Your task to perform on an android device: Search for Mexican restaurants on Maps Image 0: 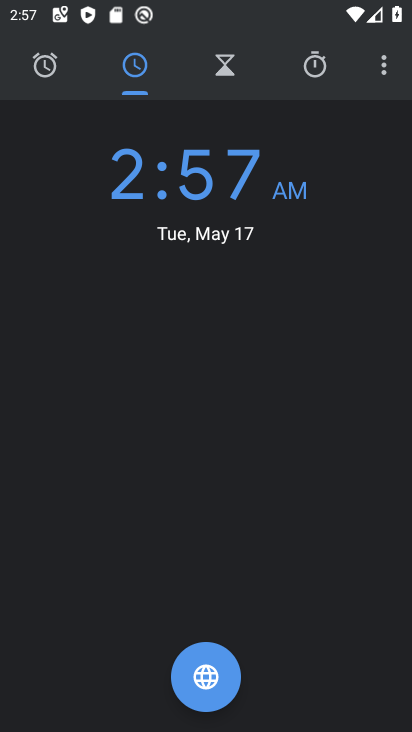
Step 0: press home button
Your task to perform on an android device: Search for Mexican restaurants on Maps Image 1: 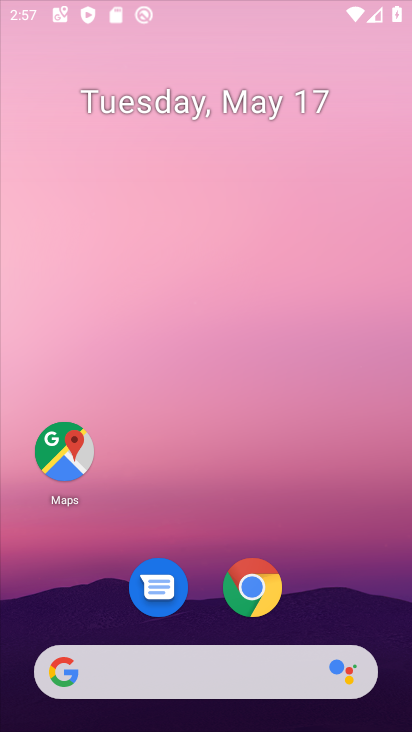
Step 1: drag from (286, 658) to (265, 3)
Your task to perform on an android device: Search for Mexican restaurants on Maps Image 2: 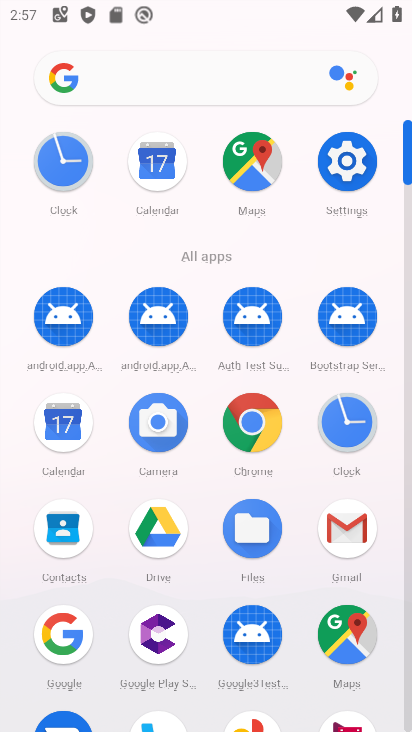
Step 2: click (350, 633)
Your task to perform on an android device: Search for Mexican restaurants on Maps Image 3: 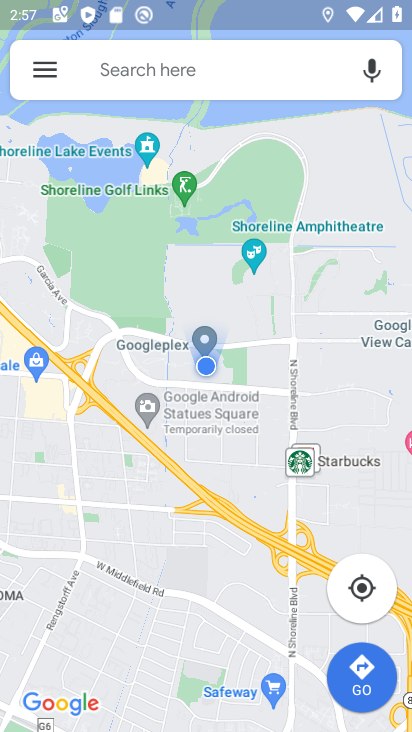
Step 3: click (254, 63)
Your task to perform on an android device: Search for Mexican restaurants on Maps Image 4: 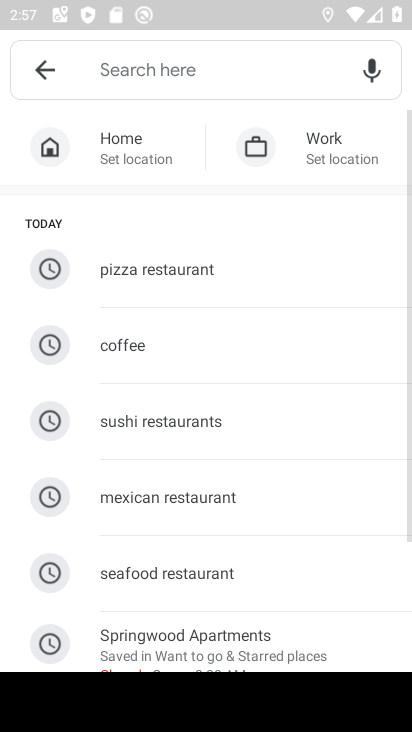
Step 4: click (203, 520)
Your task to perform on an android device: Search for Mexican restaurants on Maps Image 5: 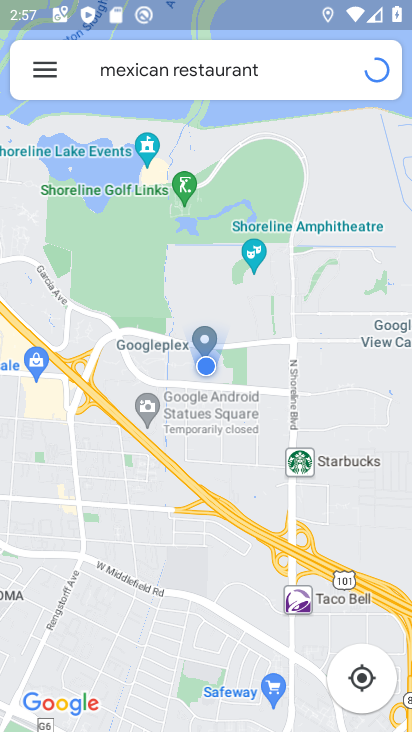
Step 5: task complete